Your task to perform on an android device: Open Chrome and go to settings Image 0: 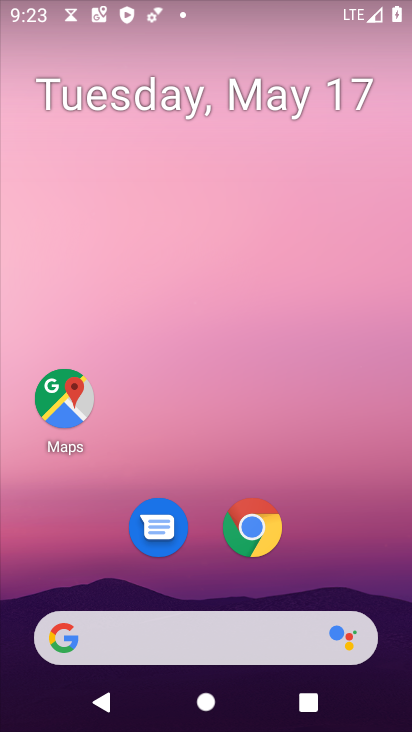
Step 0: click (252, 538)
Your task to perform on an android device: Open Chrome and go to settings Image 1: 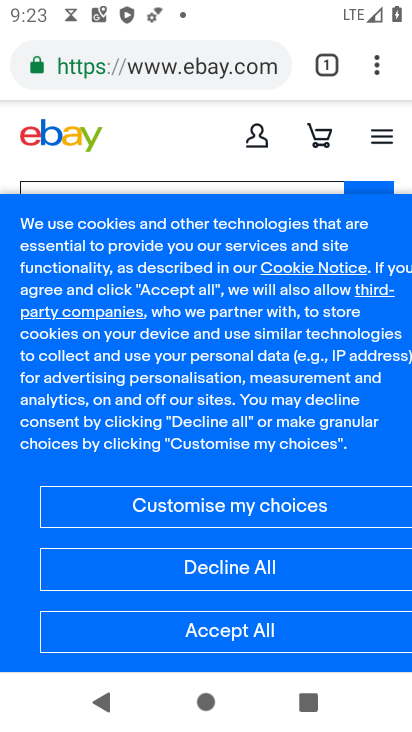
Step 1: task complete